Your task to perform on an android device: turn off picture-in-picture Image 0: 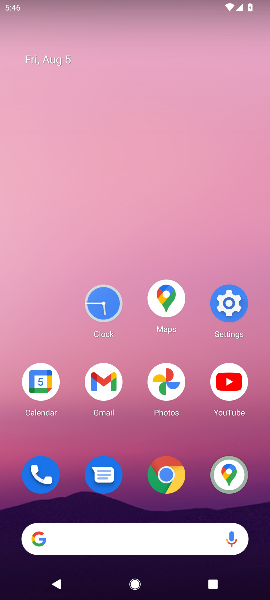
Step 0: click (160, 476)
Your task to perform on an android device: turn off picture-in-picture Image 1: 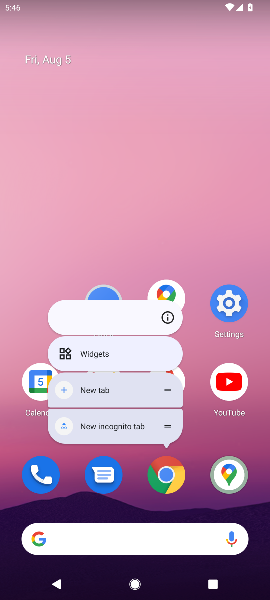
Step 1: click (166, 315)
Your task to perform on an android device: turn off picture-in-picture Image 2: 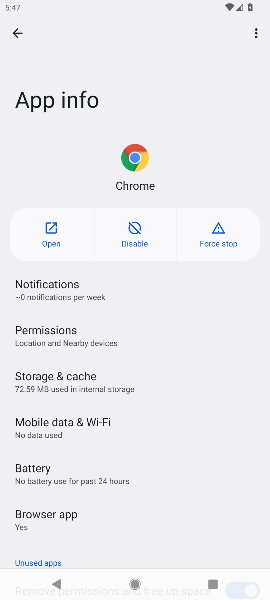
Step 2: drag from (133, 529) to (127, 305)
Your task to perform on an android device: turn off picture-in-picture Image 3: 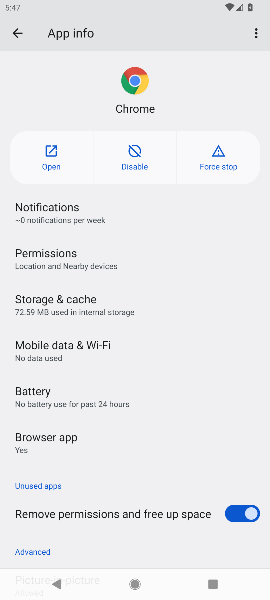
Step 3: drag from (175, 462) to (170, 234)
Your task to perform on an android device: turn off picture-in-picture Image 4: 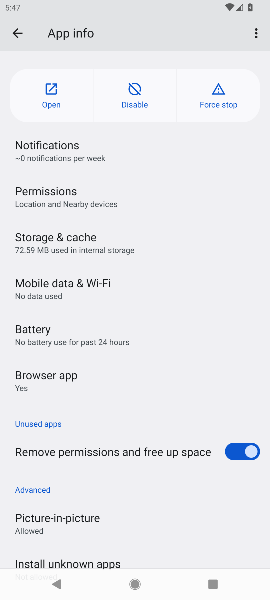
Step 4: click (47, 524)
Your task to perform on an android device: turn off picture-in-picture Image 5: 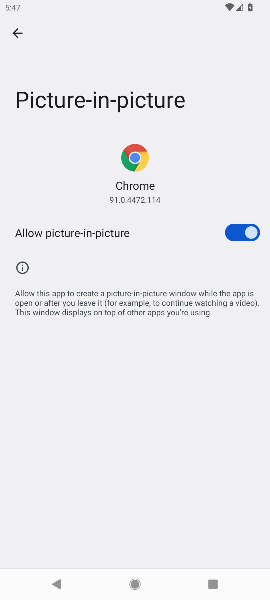
Step 5: click (239, 235)
Your task to perform on an android device: turn off picture-in-picture Image 6: 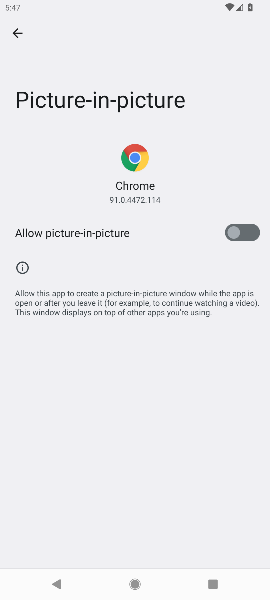
Step 6: task complete